Your task to perform on an android device: Go to settings Image 0: 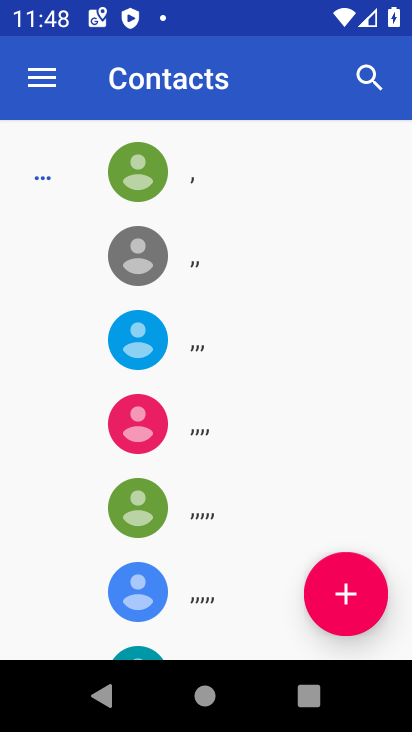
Step 0: press home button
Your task to perform on an android device: Go to settings Image 1: 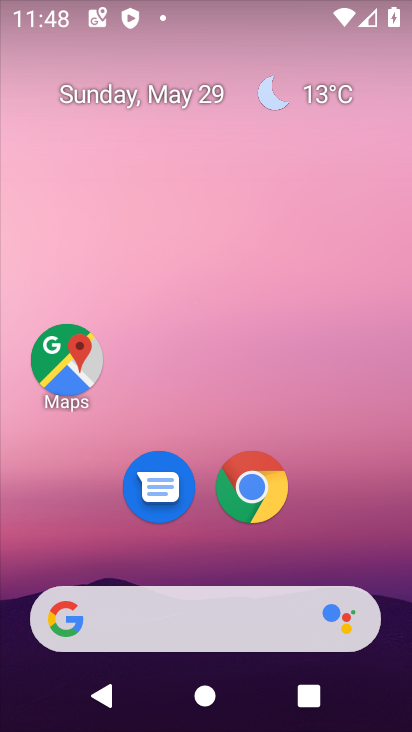
Step 1: drag from (346, 506) to (317, 51)
Your task to perform on an android device: Go to settings Image 2: 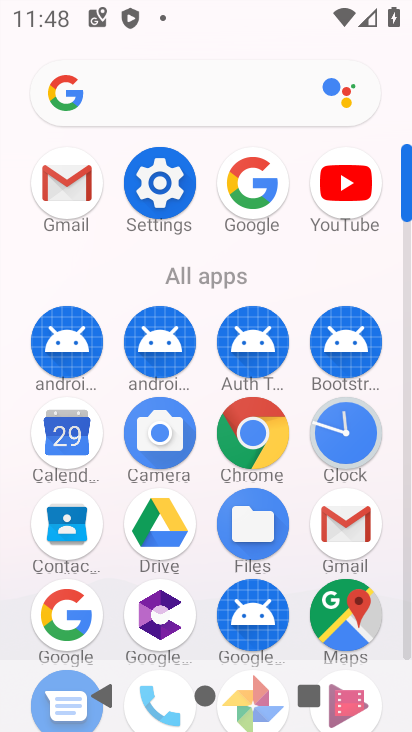
Step 2: click (170, 180)
Your task to perform on an android device: Go to settings Image 3: 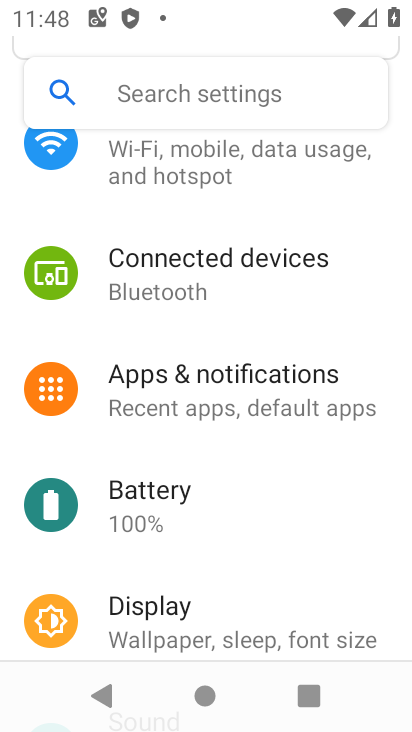
Step 3: task complete